Your task to perform on an android device: open device folders in google photos Image 0: 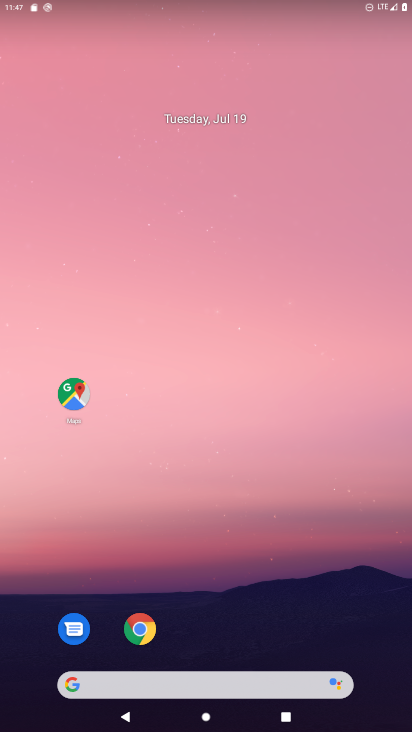
Step 0: drag from (218, 545) to (202, 149)
Your task to perform on an android device: open device folders in google photos Image 1: 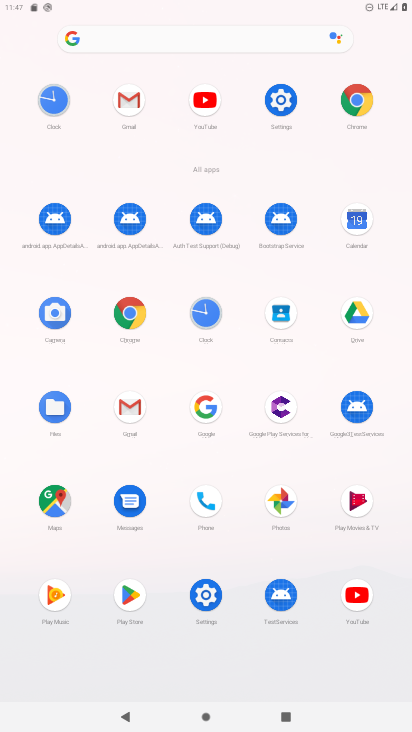
Step 1: click (273, 508)
Your task to perform on an android device: open device folders in google photos Image 2: 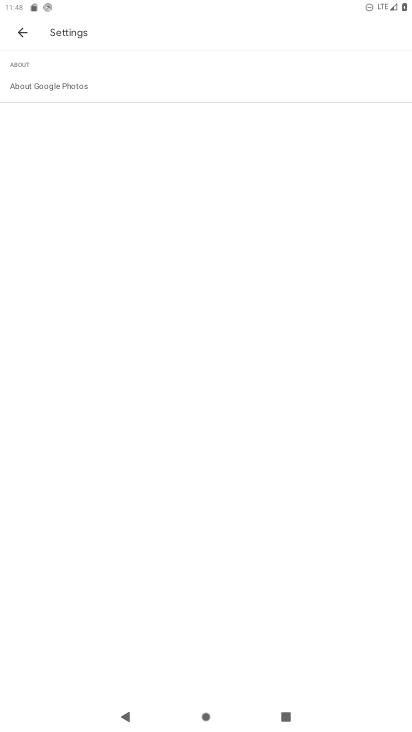
Step 2: click (18, 30)
Your task to perform on an android device: open device folders in google photos Image 3: 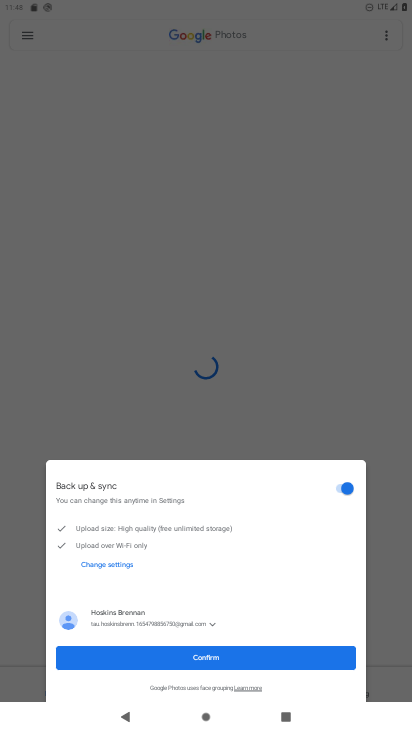
Step 3: click (204, 657)
Your task to perform on an android device: open device folders in google photos Image 4: 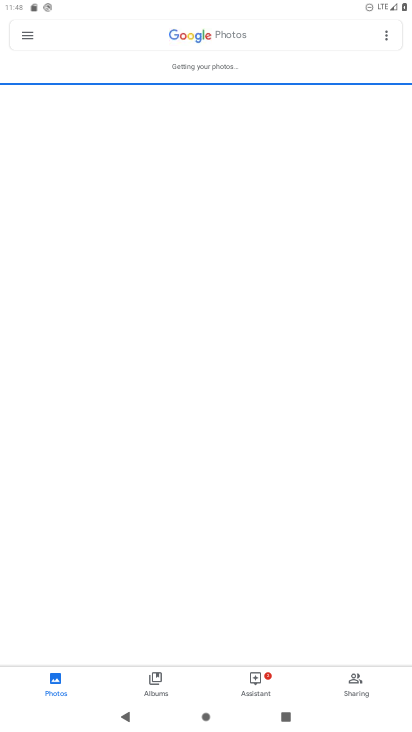
Step 4: click (26, 34)
Your task to perform on an android device: open device folders in google photos Image 5: 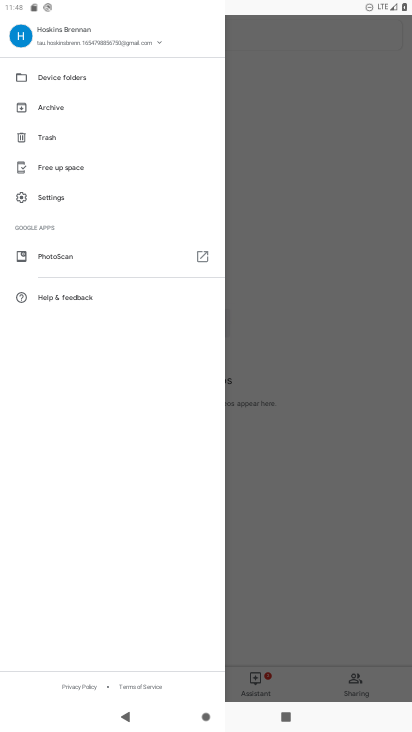
Step 5: click (50, 79)
Your task to perform on an android device: open device folders in google photos Image 6: 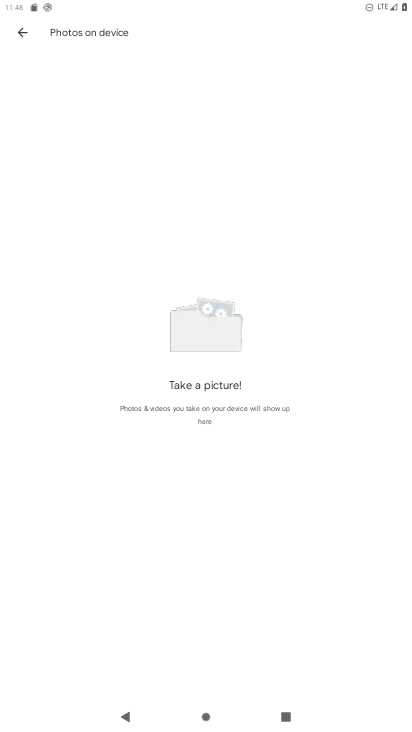
Step 6: task complete